Your task to perform on an android device: remove spam from my inbox in the gmail app Image 0: 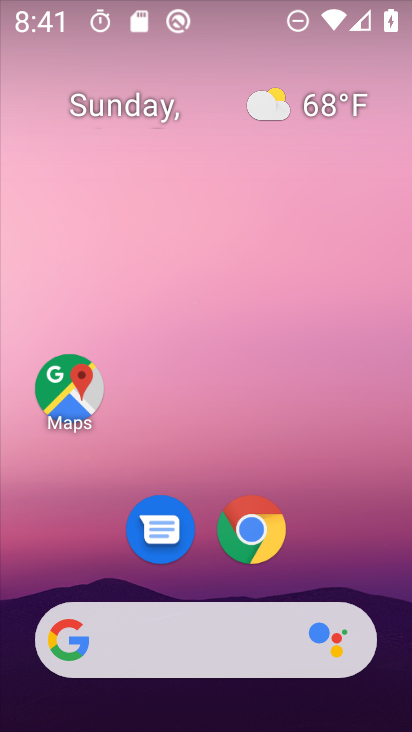
Step 0: drag from (206, 579) to (248, 89)
Your task to perform on an android device: remove spam from my inbox in the gmail app Image 1: 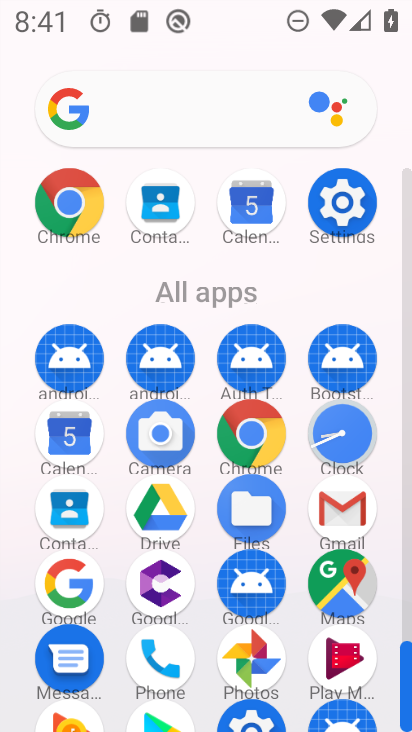
Step 1: click (341, 497)
Your task to perform on an android device: remove spam from my inbox in the gmail app Image 2: 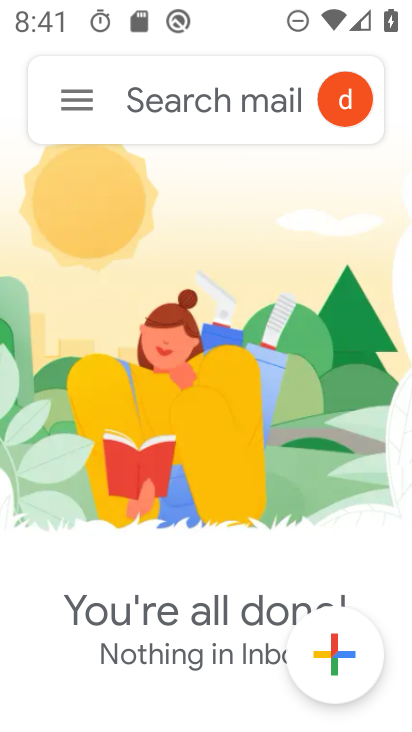
Step 2: click (73, 93)
Your task to perform on an android device: remove spam from my inbox in the gmail app Image 3: 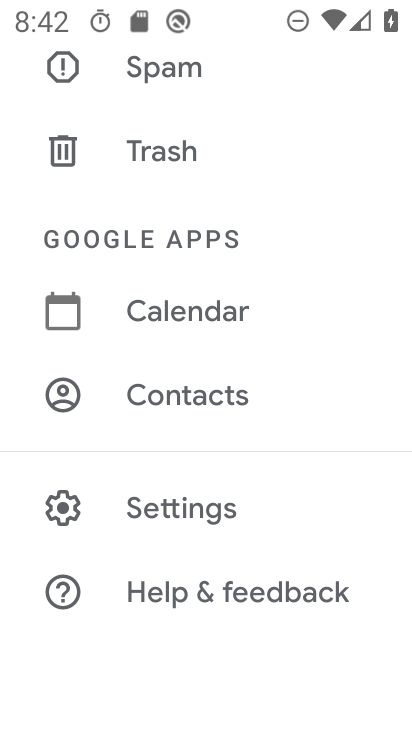
Step 3: click (113, 68)
Your task to perform on an android device: remove spam from my inbox in the gmail app Image 4: 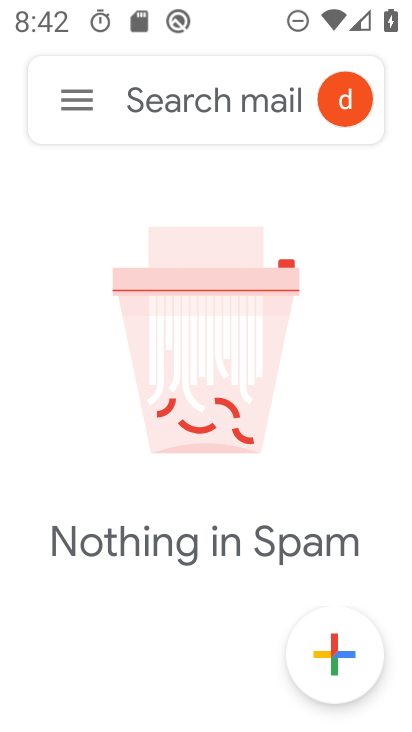
Step 4: task complete